Your task to perform on an android device: Do I have any events today? Image 0: 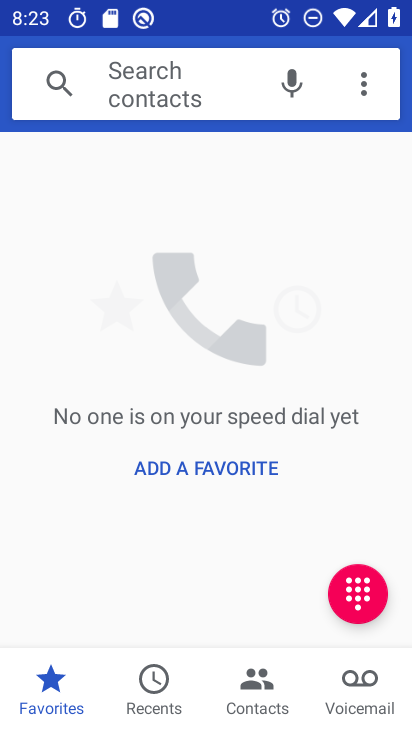
Step 0: press home button
Your task to perform on an android device: Do I have any events today? Image 1: 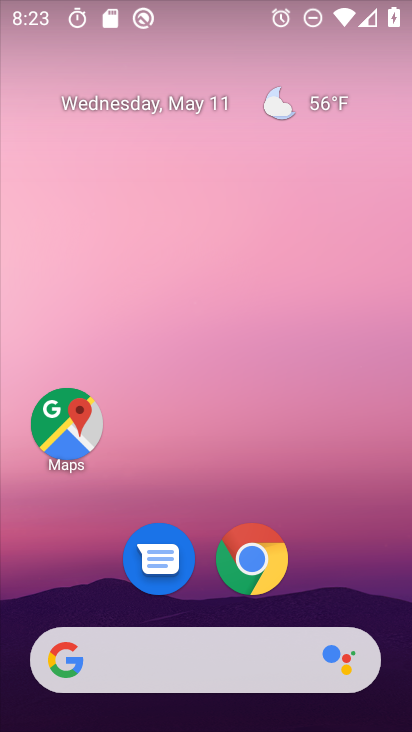
Step 1: drag from (347, 572) to (302, 185)
Your task to perform on an android device: Do I have any events today? Image 2: 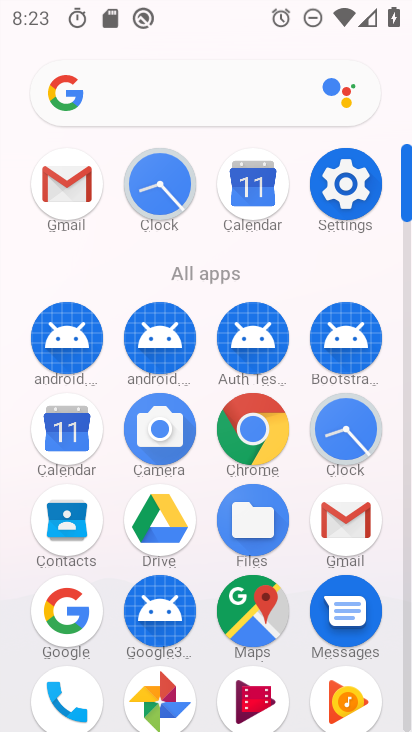
Step 2: click (83, 429)
Your task to perform on an android device: Do I have any events today? Image 3: 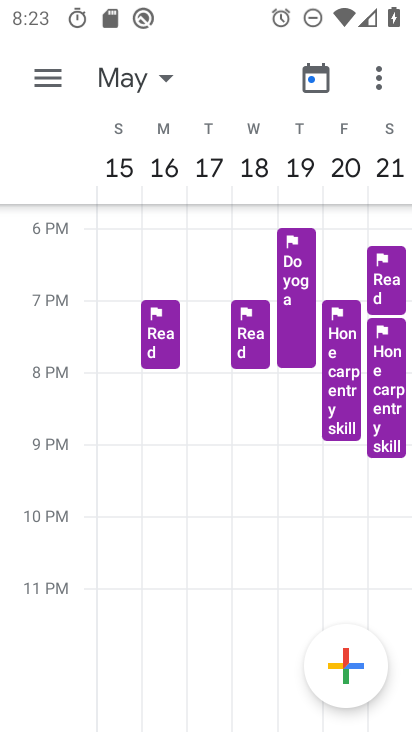
Step 3: click (38, 76)
Your task to perform on an android device: Do I have any events today? Image 4: 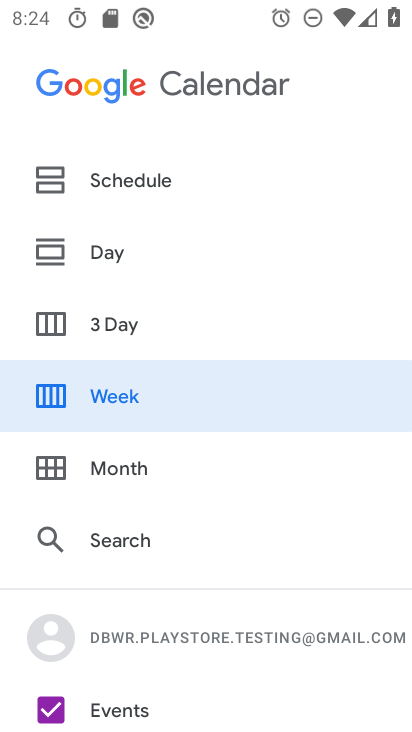
Step 4: click (93, 186)
Your task to perform on an android device: Do I have any events today? Image 5: 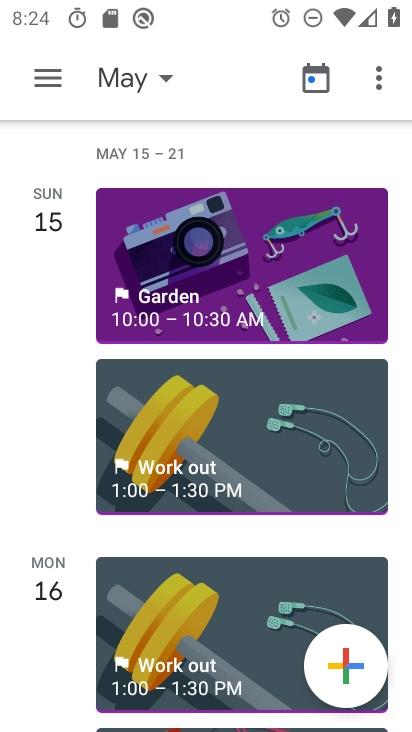
Step 5: task complete